Your task to perform on an android device: turn on bluetooth scan Image 0: 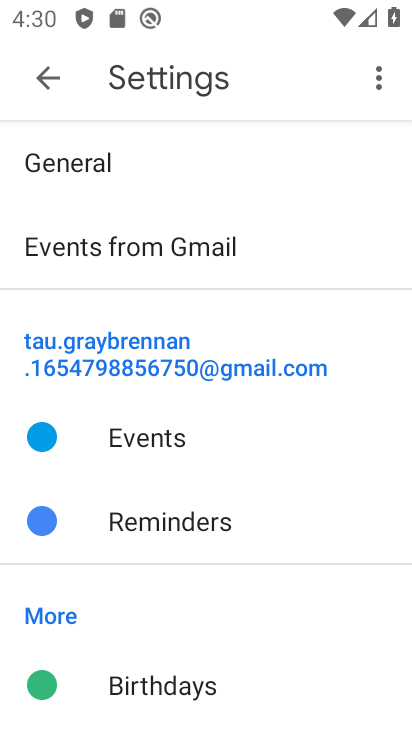
Step 0: press home button
Your task to perform on an android device: turn on bluetooth scan Image 1: 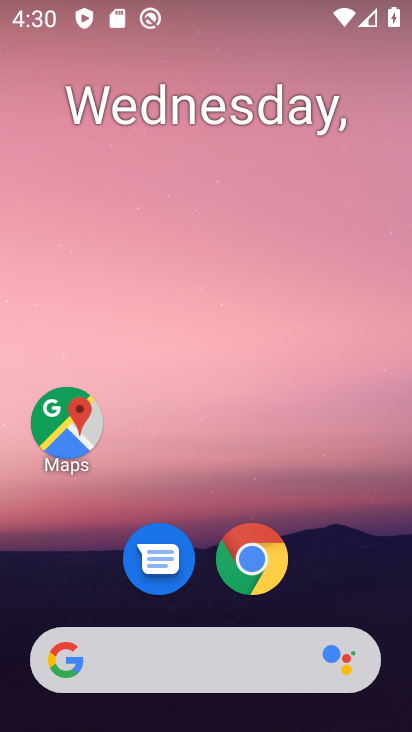
Step 1: drag from (384, 602) to (296, 171)
Your task to perform on an android device: turn on bluetooth scan Image 2: 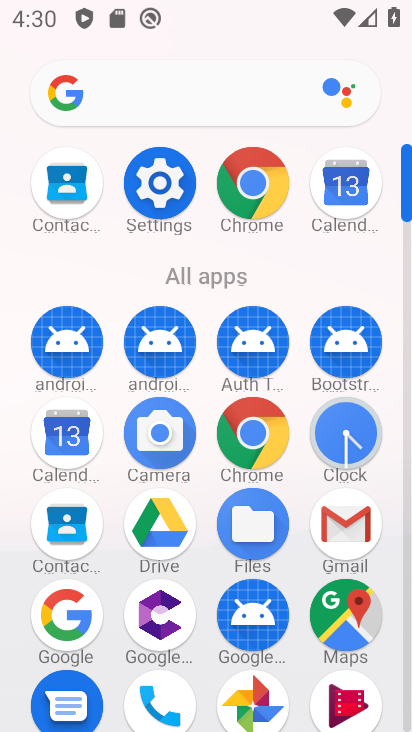
Step 2: click (166, 187)
Your task to perform on an android device: turn on bluetooth scan Image 3: 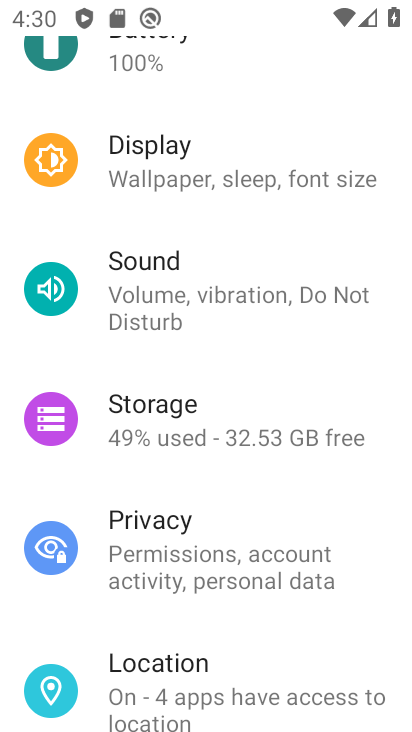
Step 3: drag from (234, 212) to (245, 618)
Your task to perform on an android device: turn on bluetooth scan Image 4: 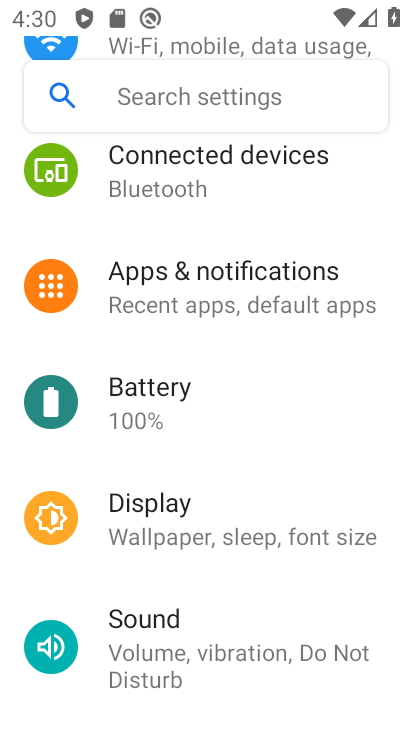
Step 4: drag from (287, 615) to (252, 264)
Your task to perform on an android device: turn on bluetooth scan Image 5: 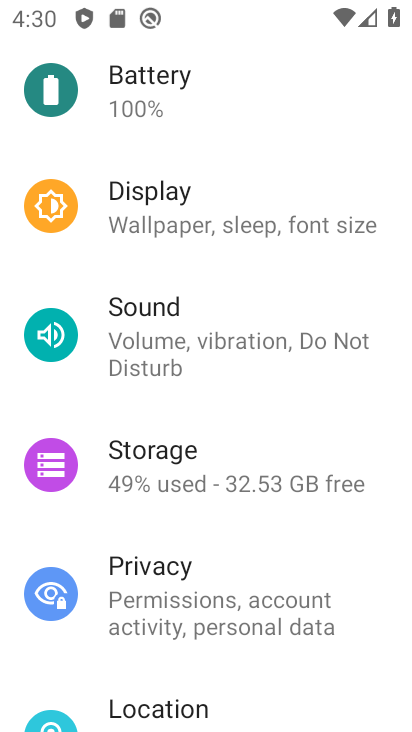
Step 5: click (272, 719)
Your task to perform on an android device: turn on bluetooth scan Image 6: 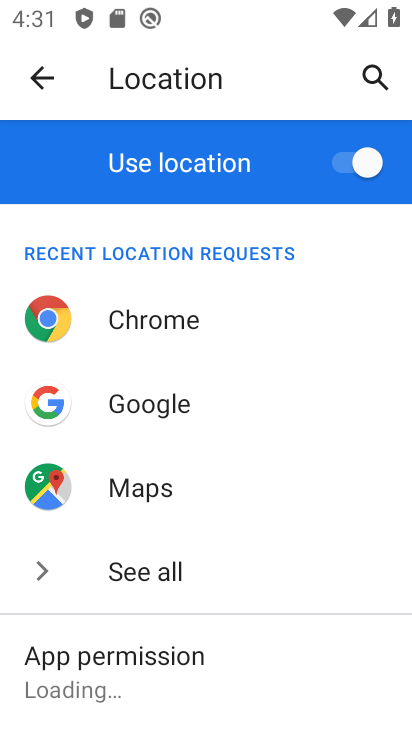
Step 6: drag from (333, 651) to (265, 325)
Your task to perform on an android device: turn on bluetooth scan Image 7: 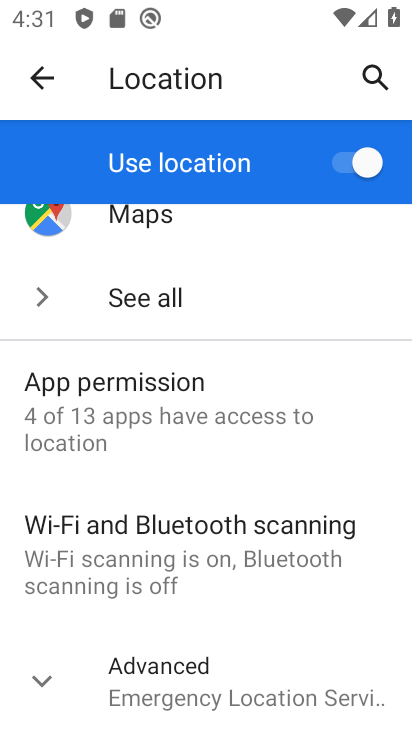
Step 7: click (262, 530)
Your task to perform on an android device: turn on bluetooth scan Image 8: 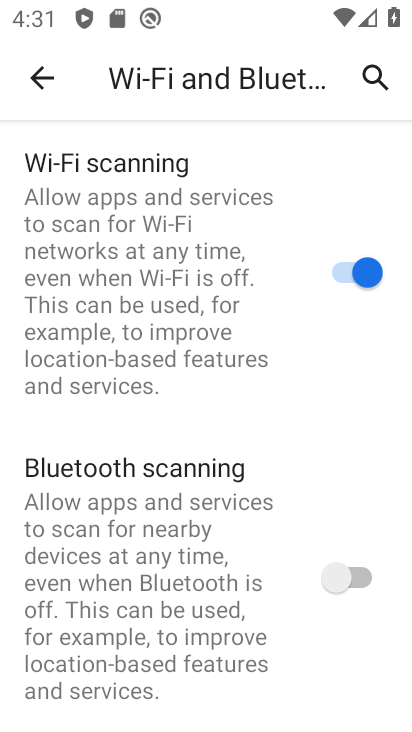
Step 8: click (372, 572)
Your task to perform on an android device: turn on bluetooth scan Image 9: 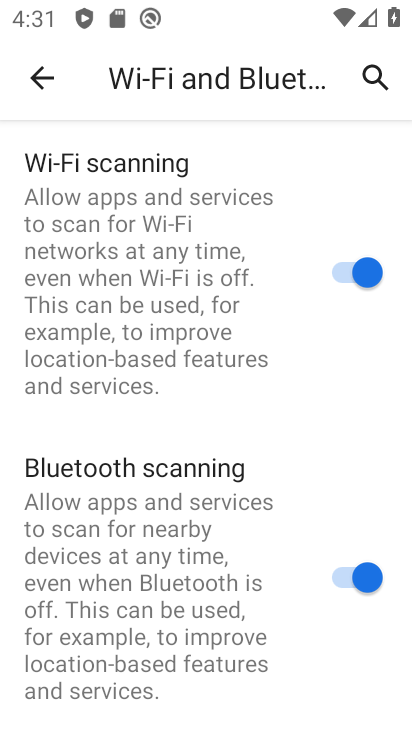
Step 9: task complete